Your task to perform on an android device: open a bookmark in the chrome app Image 0: 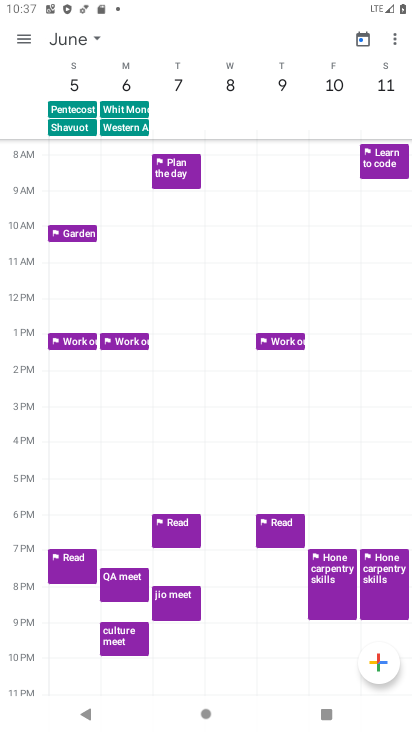
Step 0: press home button
Your task to perform on an android device: open a bookmark in the chrome app Image 1: 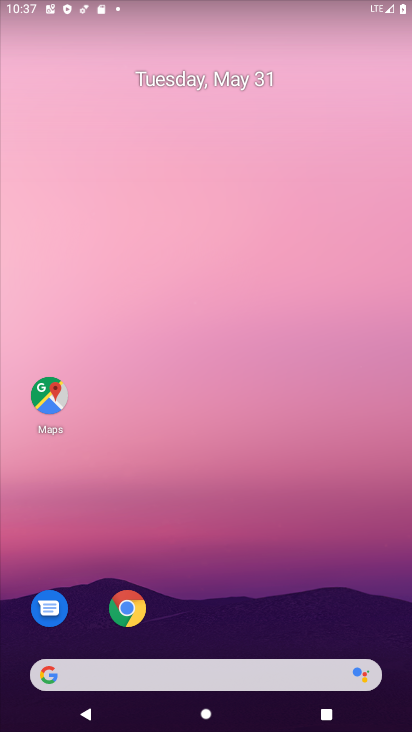
Step 1: click (140, 610)
Your task to perform on an android device: open a bookmark in the chrome app Image 2: 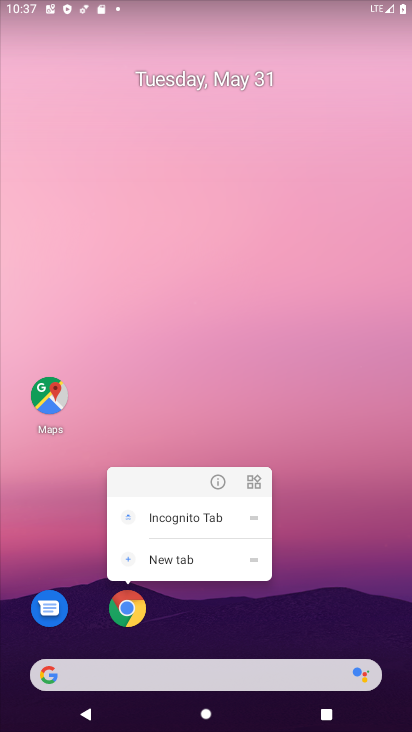
Step 2: click (147, 600)
Your task to perform on an android device: open a bookmark in the chrome app Image 3: 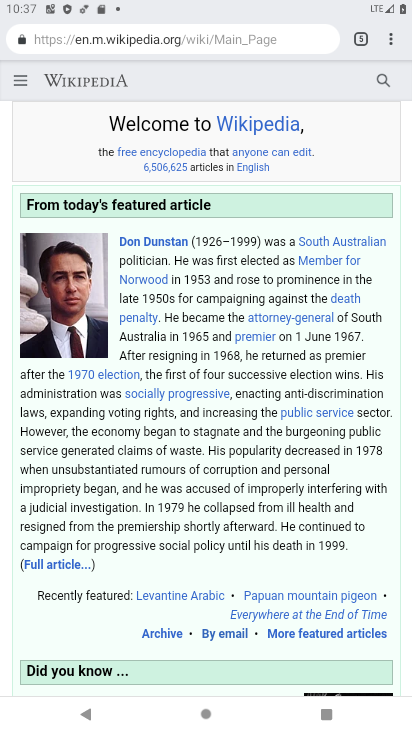
Step 3: task complete